Your task to perform on an android device: toggle location history Image 0: 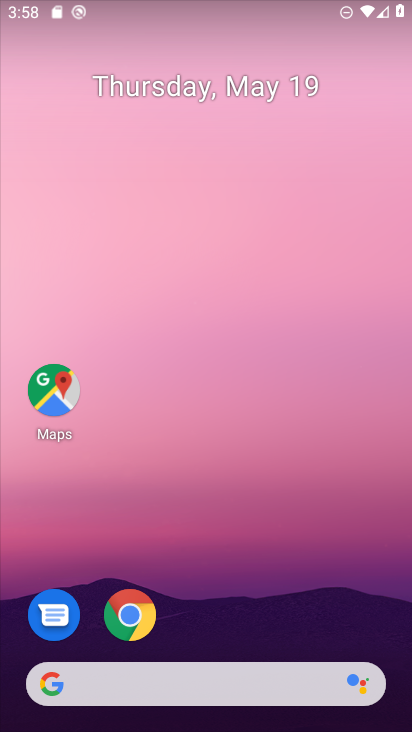
Step 0: click (54, 363)
Your task to perform on an android device: toggle location history Image 1: 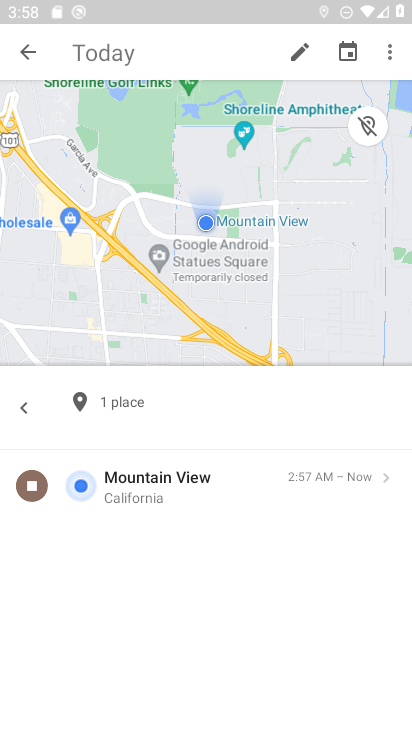
Step 1: click (388, 52)
Your task to perform on an android device: toggle location history Image 2: 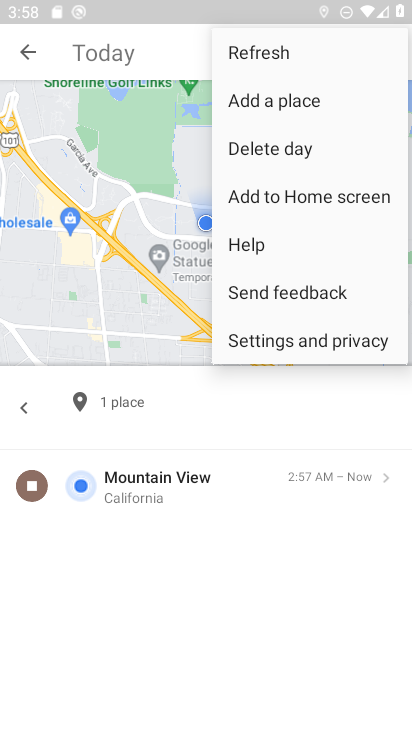
Step 2: click (352, 343)
Your task to perform on an android device: toggle location history Image 3: 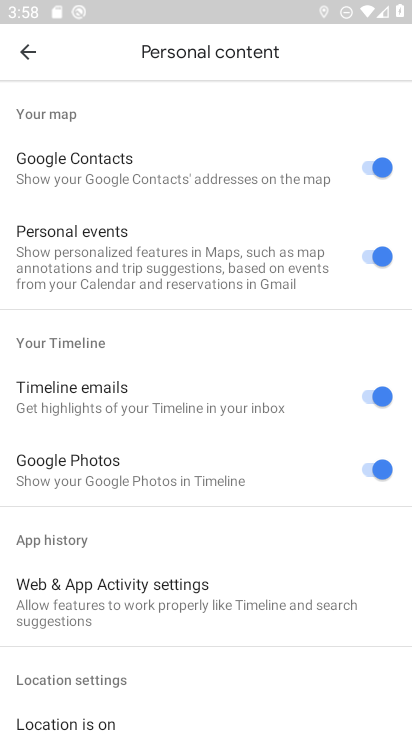
Step 3: drag from (266, 636) to (221, 160)
Your task to perform on an android device: toggle location history Image 4: 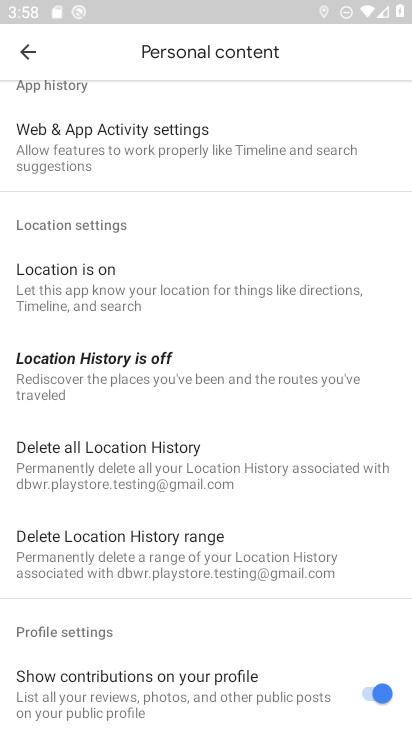
Step 4: click (244, 387)
Your task to perform on an android device: toggle location history Image 5: 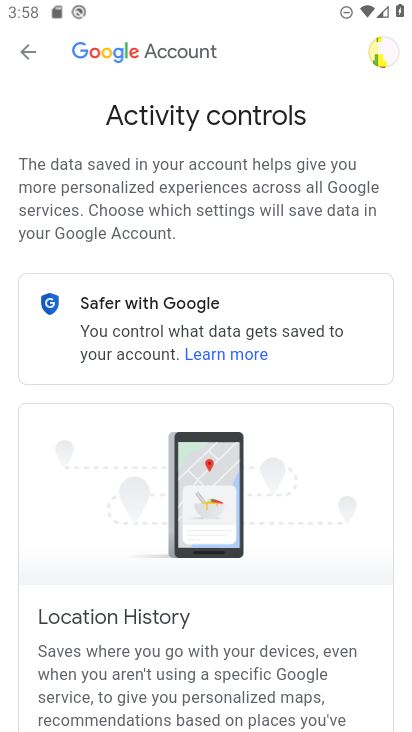
Step 5: drag from (336, 669) to (265, 254)
Your task to perform on an android device: toggle location history Image 6: 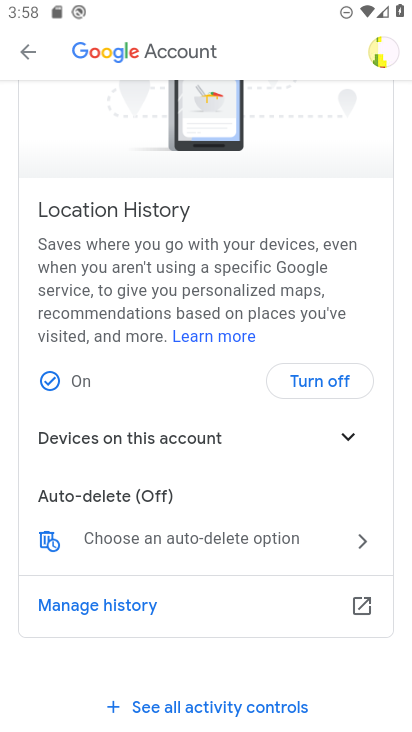
Step 6: click (338, 386)
Your task to perform on an android device: toggle location history Image 7: 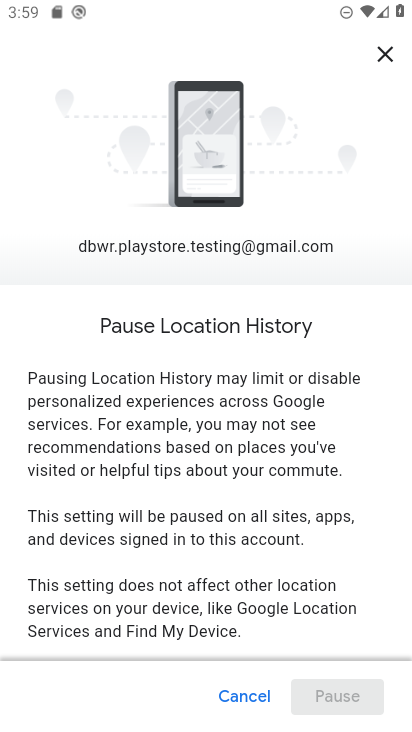
Step 7: drag from (367, 648) to (267, 189)
Your task to perform on an android device: toggle location history Image 8: 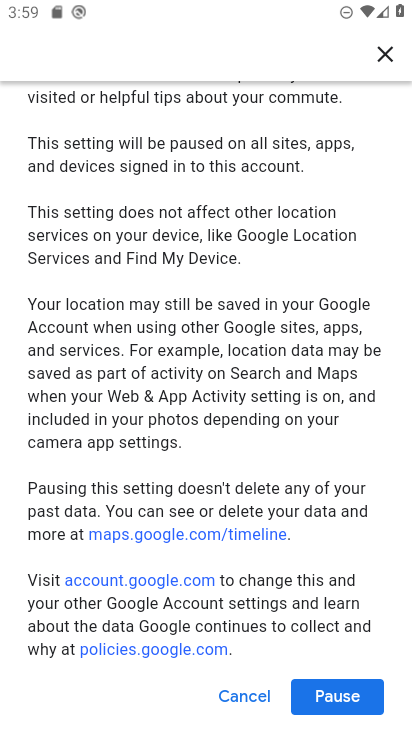
Step 8: click (362, 710)
Your task to perform on an android device: toggle location history Image 9: 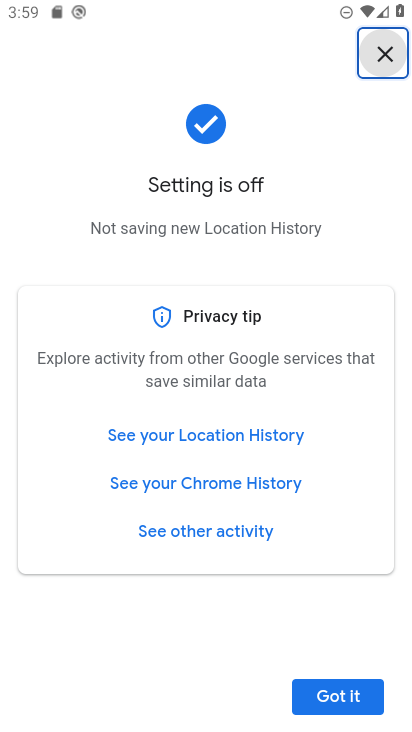
Step 9: click (350, 709)
Your task to perform on an android device: toggle location history Image 10: 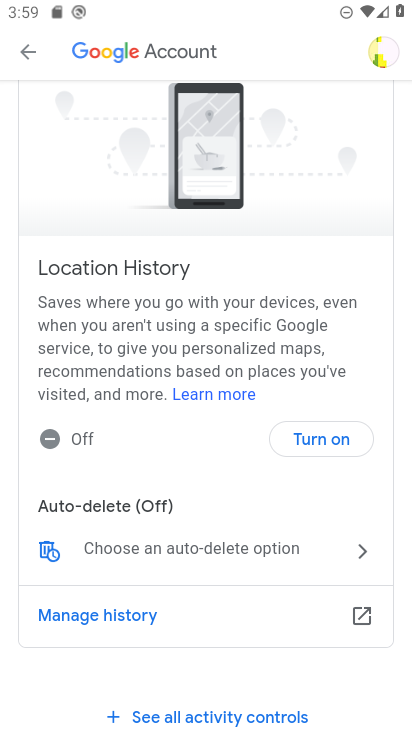
Step 10: task complete